Your task to perform on an android device: toggle notification dots Image 0: 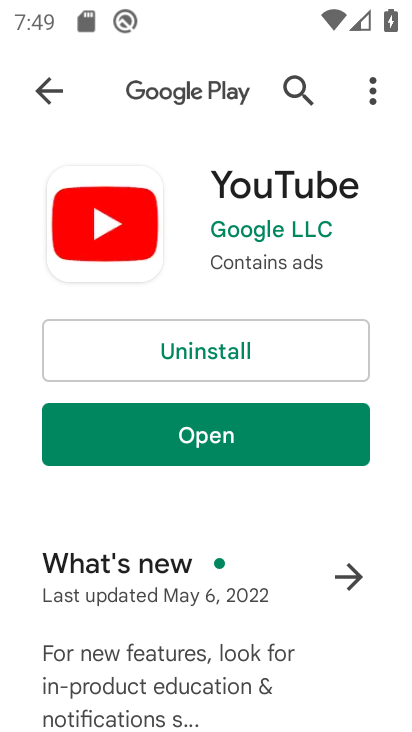
Step 0: press home button
Your task to perform on an android device: toggle notification dots Image 1: 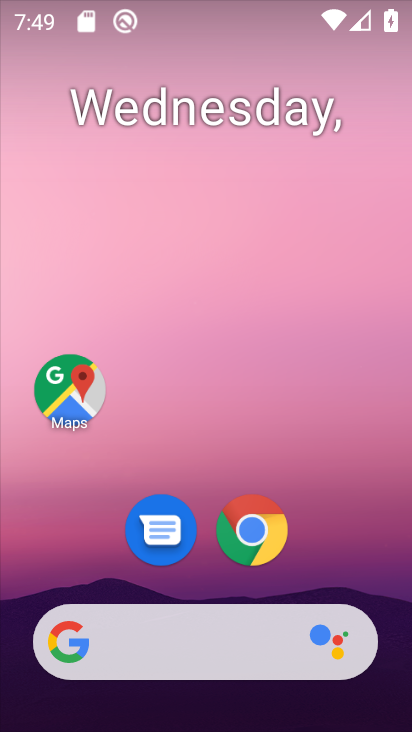
Step 1: drag from (399, 641) to (369, 37)
Your task to perform on an android device: toggle notification dots Image 2: 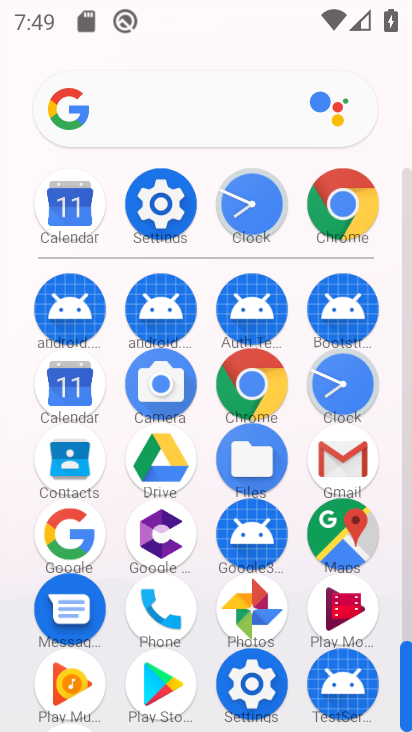
Step 2: click (249, 681)
Your task to perform on an android device: toggle notification dots Image 3: 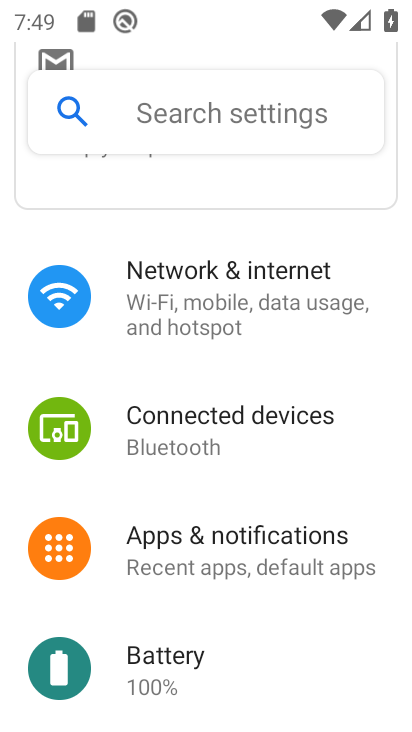
Step 3: click (228, 577)
Your task to perform on an android device: toggle notification dots Image 4: 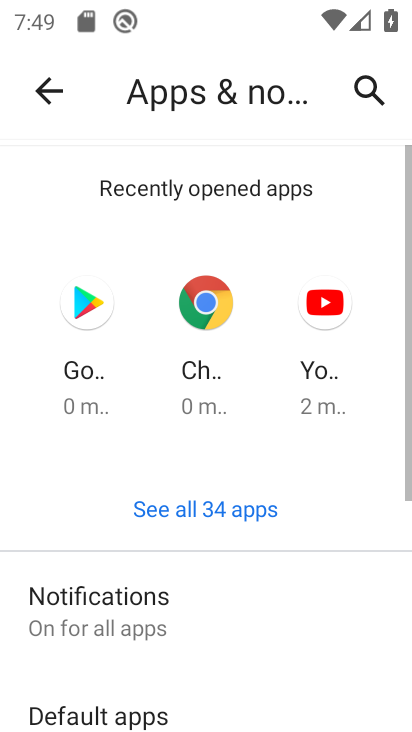
Step 4: click (228, 577)
Your task to perform on an android device: toggle notification dots Image 5: 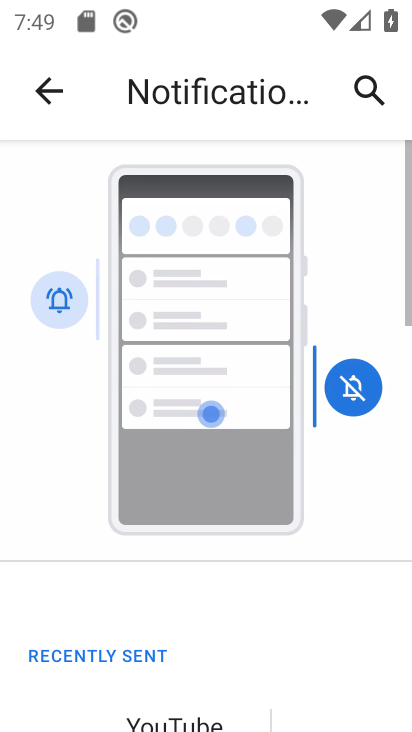
Step 5: drag from (264, 639) to (327, 53)
Your task to perform on an android device: toggle notification dots Image 6: 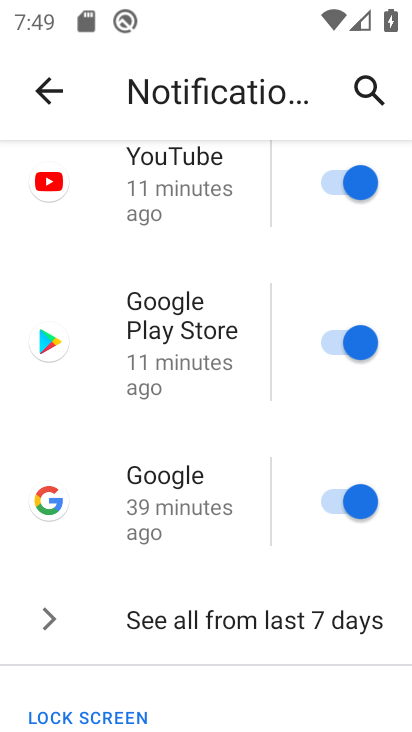
Step 6: drag from (213, 631) to (253, 144)
Your task to perform on an android device: toggle notification dots Image 7: 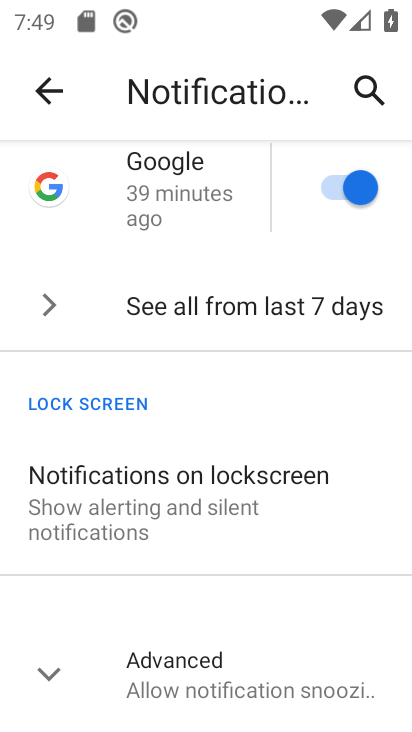
Step 7: click (171, 669)
Your task to perform on an android device: toggle notification dots Image 8: 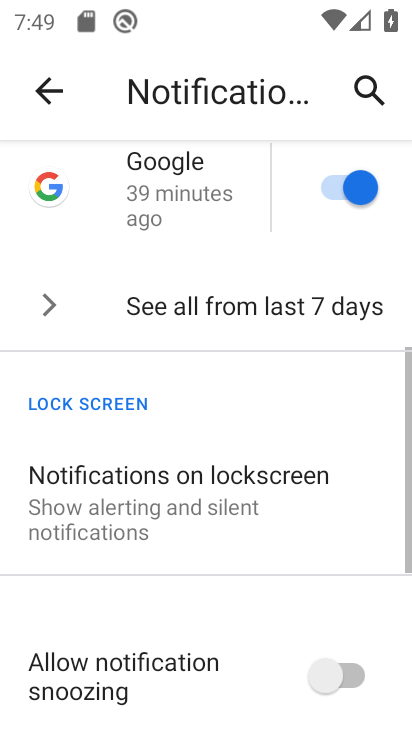
Step 8: drag from (188, 674) to (223, 124)
Your task to perform on an android device: toggle notification dots Image 9: 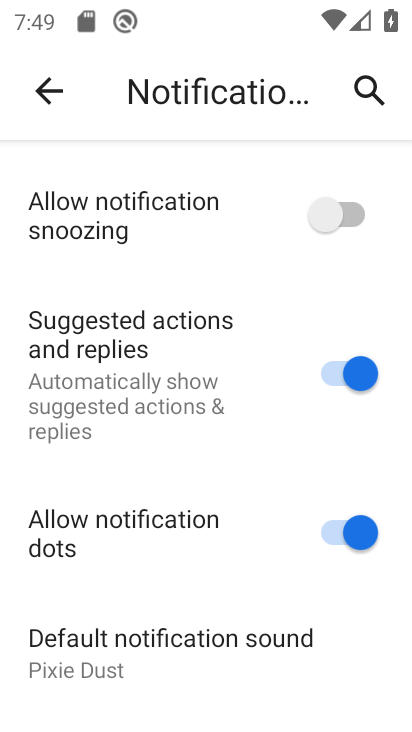
Step 9: click (269, 563)
Your task to perform on an android device: toggle notification dots Image 10: 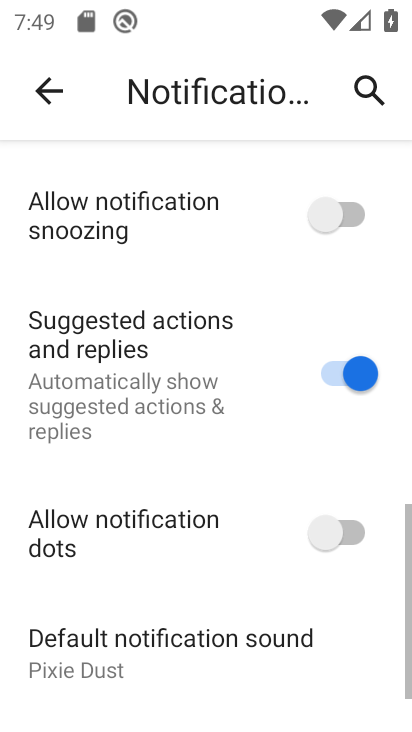
Step 10: task complete